Your task to perform on an android device: toggle notifications settings in the gmail app Image 0: 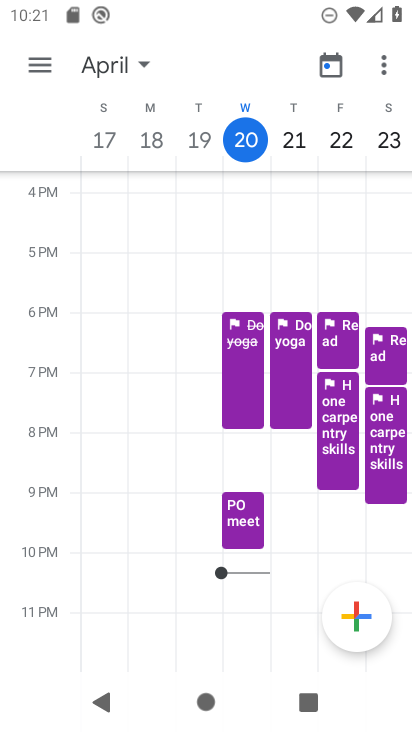
Step 0: press home button
Your task to perform on an android device: toggle notifications settings in the gmail app Image 1: 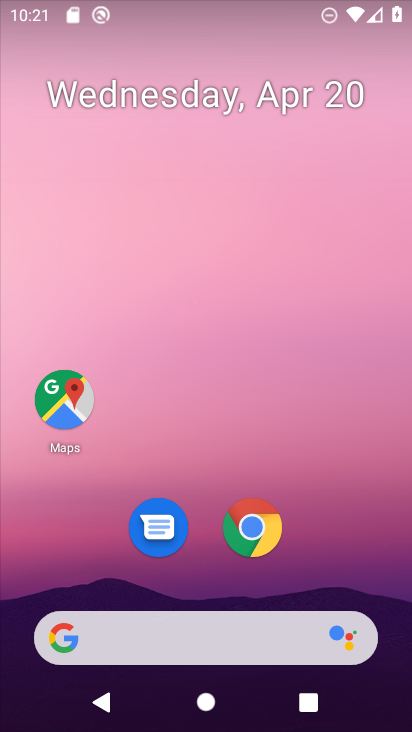
Step 1: drag from (212, 530) to (298, 173)
Your task to perform on an android device: toggle notifications settings in the gmail app Image 2: 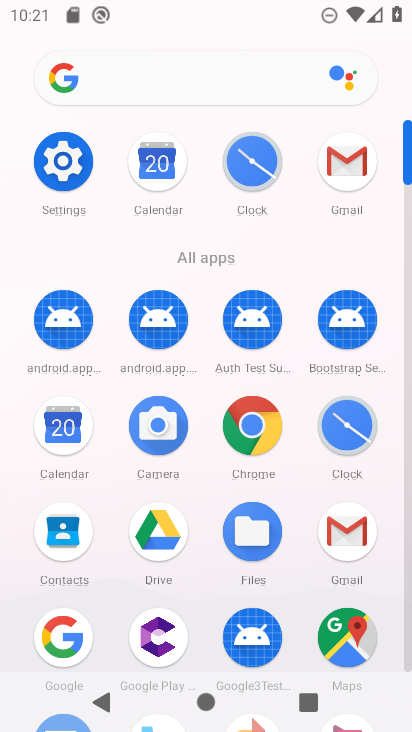
Step 2: click (353, 530)
Your task to perform on an android device: toggle notifications settings in the gmail app Image 3: 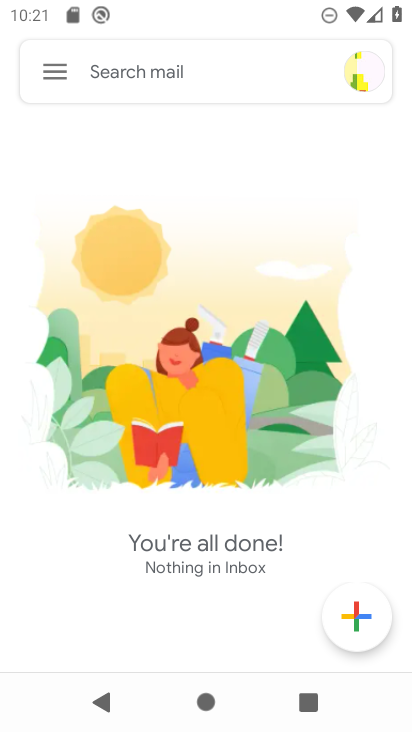
Step 3: click (47, 71)
Your task to perform on an android device: toggle notifications settings in the gmail app Image 4: 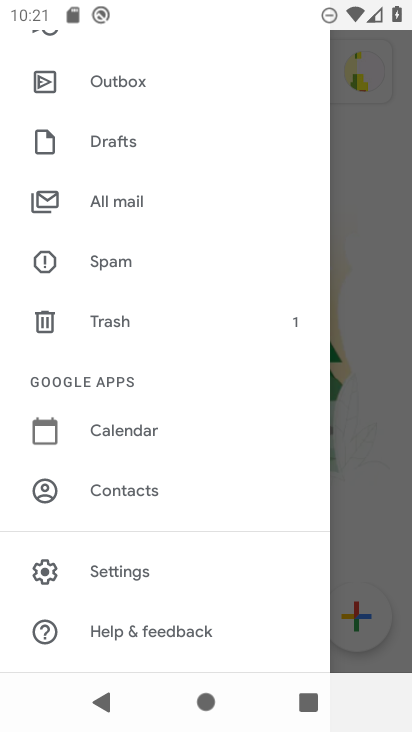
Step 4: click (137, 568)
Your task to perform on an android device: toggle notifications settings in the gmail app Image 5: 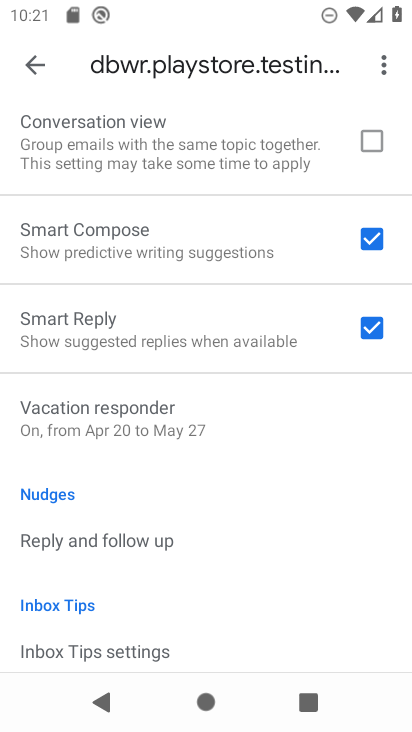
Step 5: click (28, 57)
Your task to perform on an android device: toggle notifications settings in the gmail app Image 6: 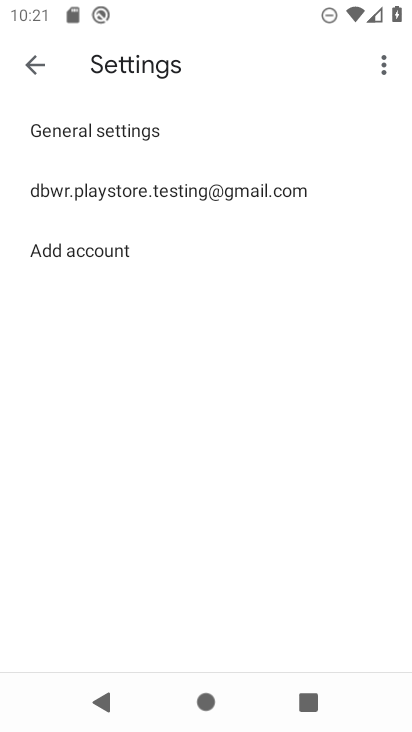
Step 6: click (129, 129)
Your task to perform on an android device: toggle notifications settings in the gmail app Image 7: 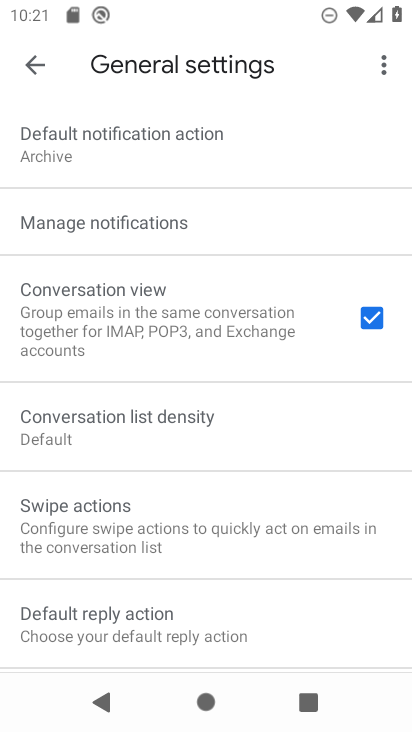
Step 7: click (124, 223)
Your task to perform on an android device: toggle notifications settings in the gmail app Image 8: 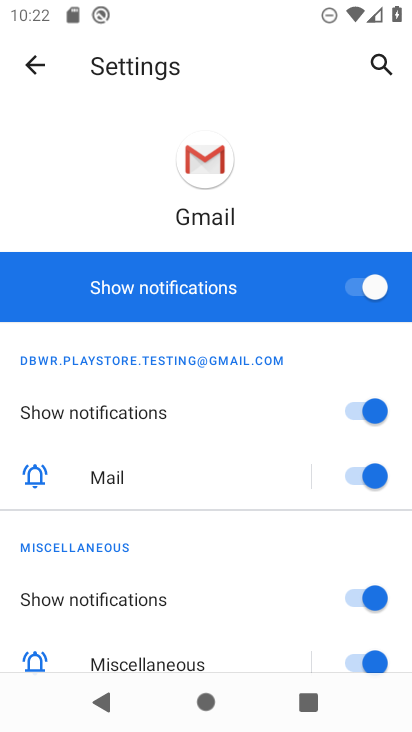
Step 8: click (363, 284)
Your task to perform on an android device: toggle notifications settings in the gmail app Image 9: 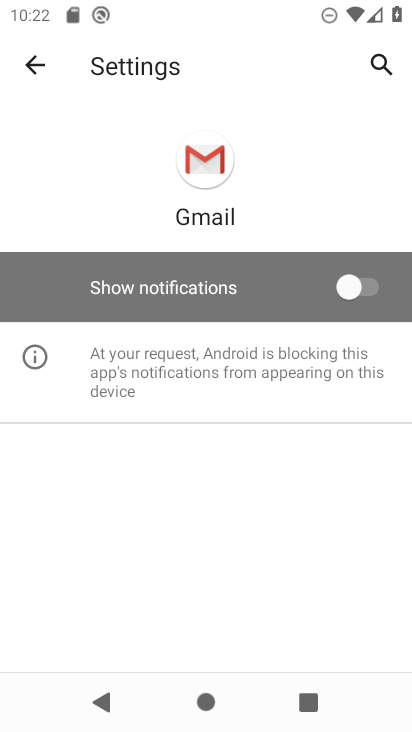
Step 9: task complete